Your task to perform on an android device: turn on airplane mode Image 0: 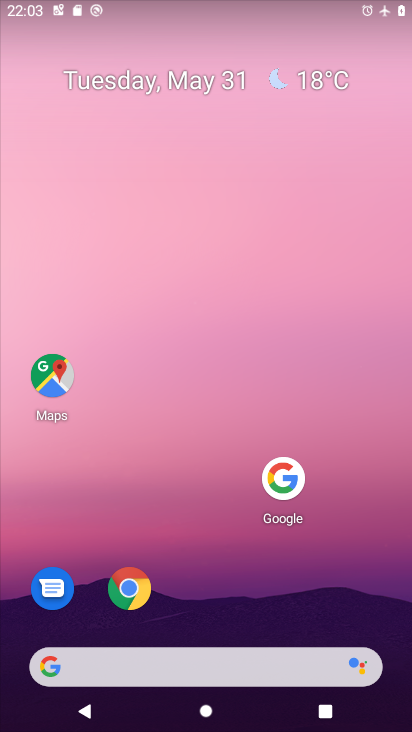
Step 0: press home button
Your task to perform on an android device: turn on airplane mode Image 1: 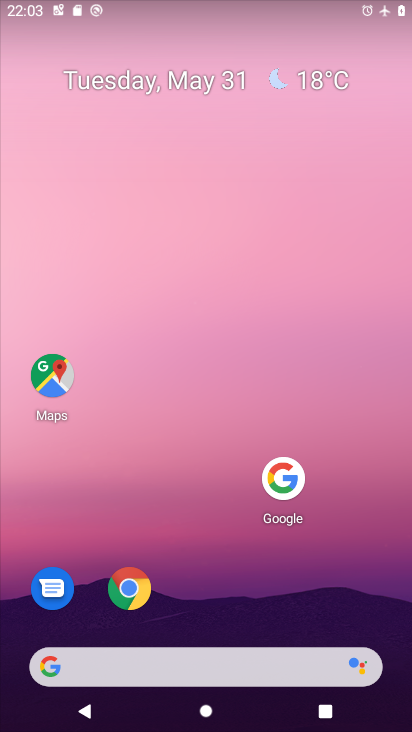
Step 1: drag from (168, 666) to (303, 100)
Your task to perform on an android device: turn on airplane mode Image 2: 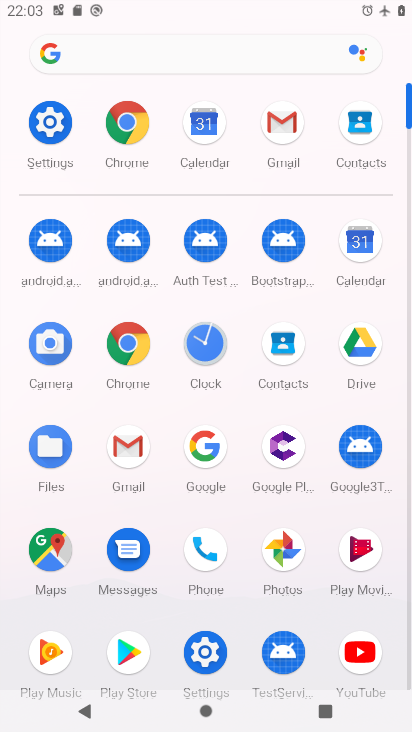
Step 2: click (39, 110)
Your task to perform on an android device: turn on airplane mode Image 3: 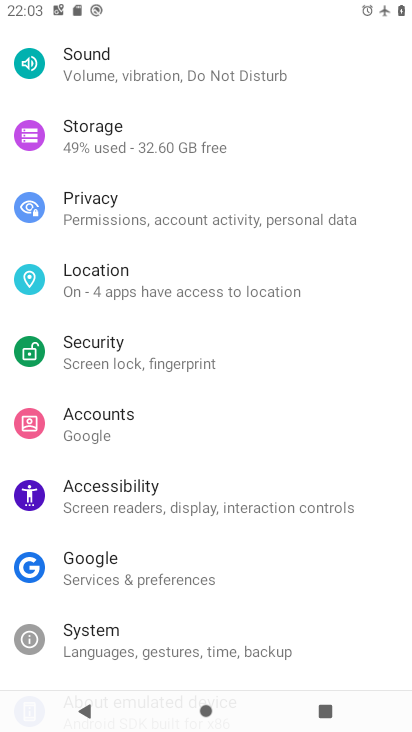
Step 3: drag from (331, 60) to (242, 550)
Your task to perform on an android device: turn on airplane mode Image 4: 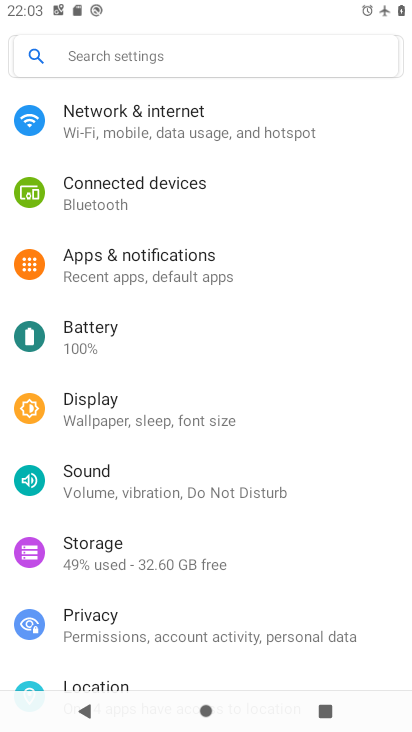
Step 4: click (197, 123)
Your task to perform on an android device: turn on airplane mode Image 5: 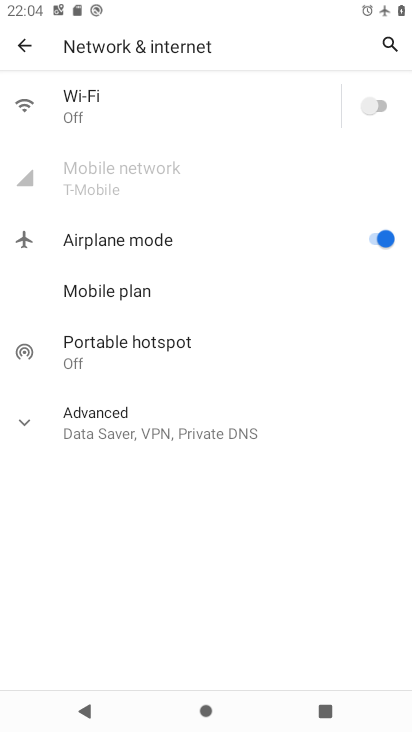
Step 5: task complete